Your task to perform on an android device: install app "Google Maps" Image 0: 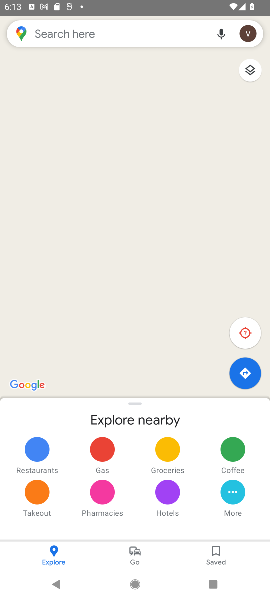
Step 0: press home button
Your task to perform on an android device: install app "Google Maps" Image 1: 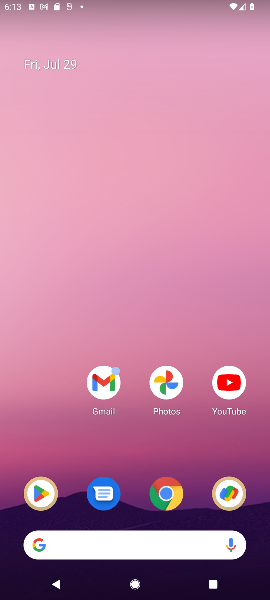
Step 1: drag from (156, 577) to (157, 81)
Your task to perform on an android device: install app "Google Maps" Image 2: 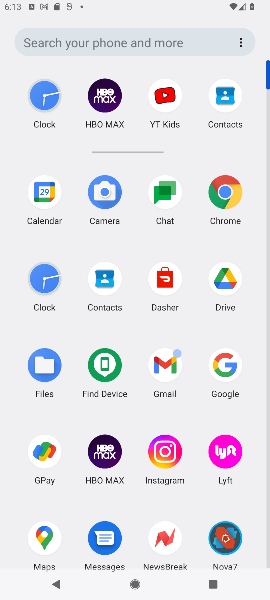
Step 2: drag from (137, 502) to (131, 201)
Your task to perform on an android device: install app "Google Maps" Image 3: 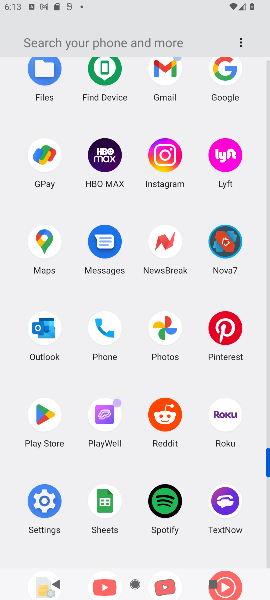
Step 3: click (45, 412)
Your task to perform on an android device: install app "Google Maps" Image 4: 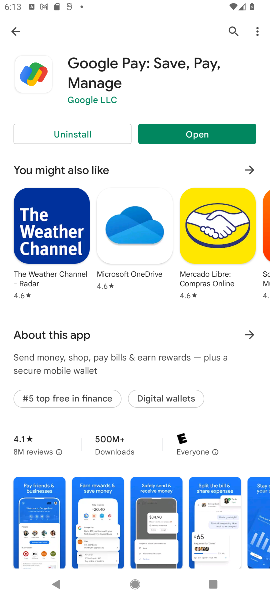
Step 4: click (233, 29)
Your task to perform on an android device: install app "Google Maps" Image 5: 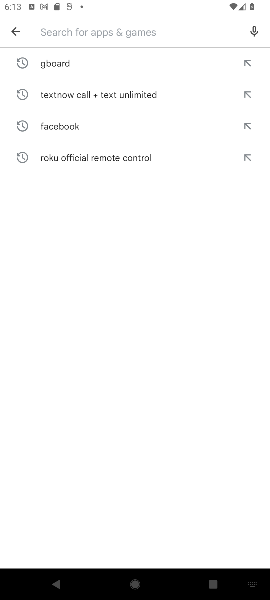
Step 5: type "Google Maps"
Your task to perform on an android device: install app "Google Maps" Image 6: 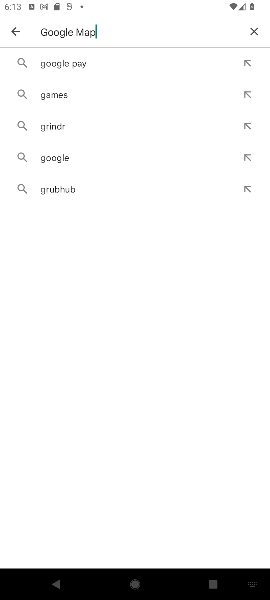
Step 6: type ""
Your task to perform on an android device: install app "Google Maps" Image 7: 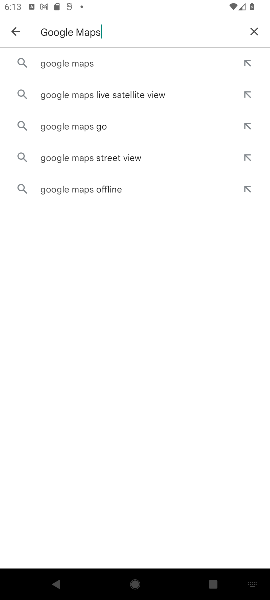
Step 7: click (90, 63)
Your task to perform on an android device: install app "Google Maps" Image 8: 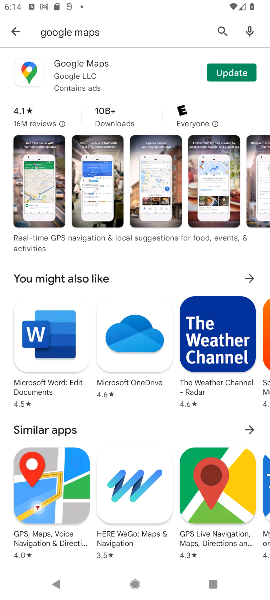
Step 8: task complete